Your task to perform on an android device: Open display settings Image 0: 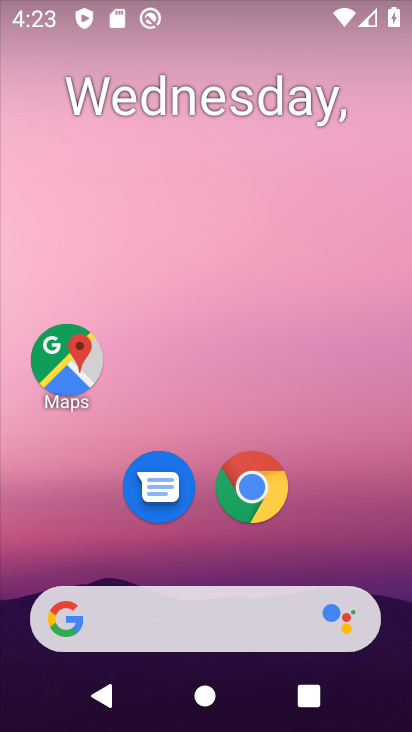
Step 0: drag from (205, 556) to (260, 110)
Your task to perform on an android device: Open display settings Image 1: 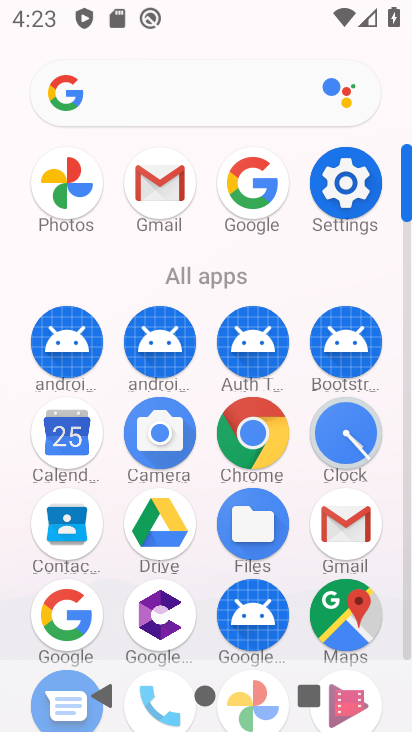
Step 1: click (349, 170)
Your task to perform on an android device: Open display settings Image 2: 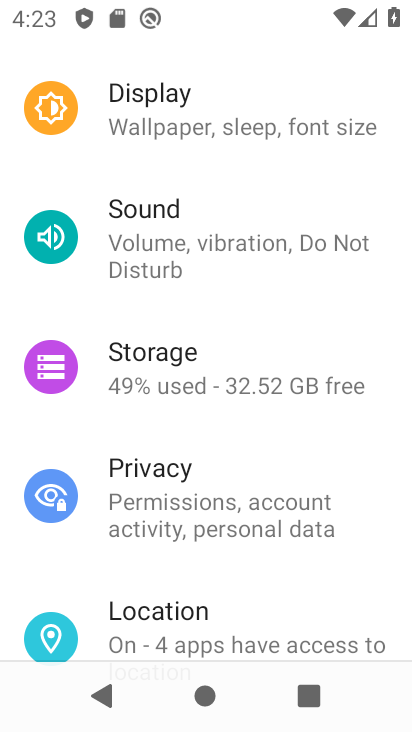
Step 2: drag from (210, 155) to (238, 578)
Your task to perform on an android device: Open display settings Image 3: 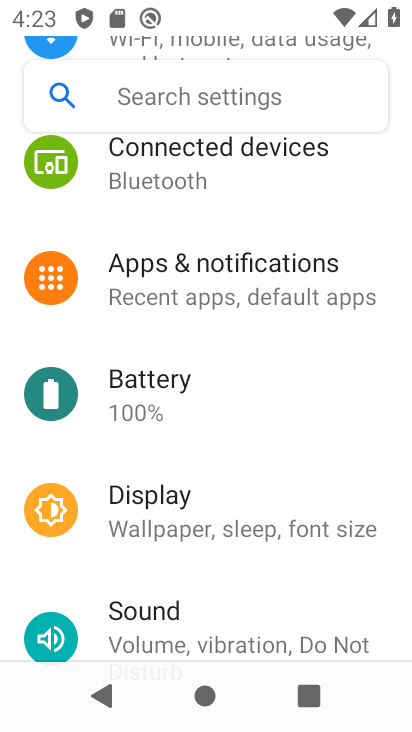
Step 3: click (211, 498)
Your task to perform on an android device: Open display settings Image 4: 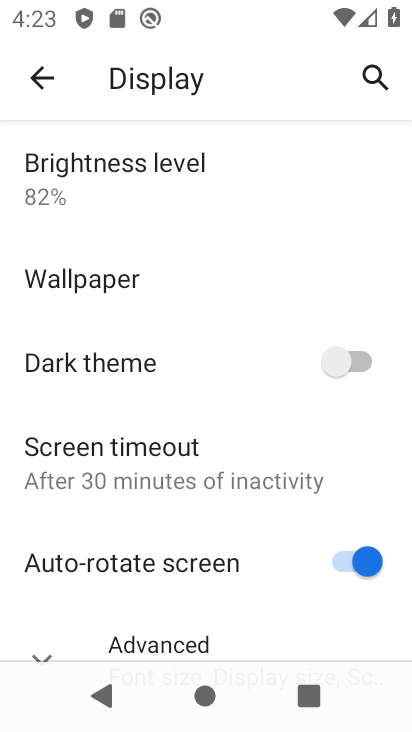
Step 4: drag from (232, 601) to (284, 183)
Your task to perform on an android device: Open display settings Image 5: 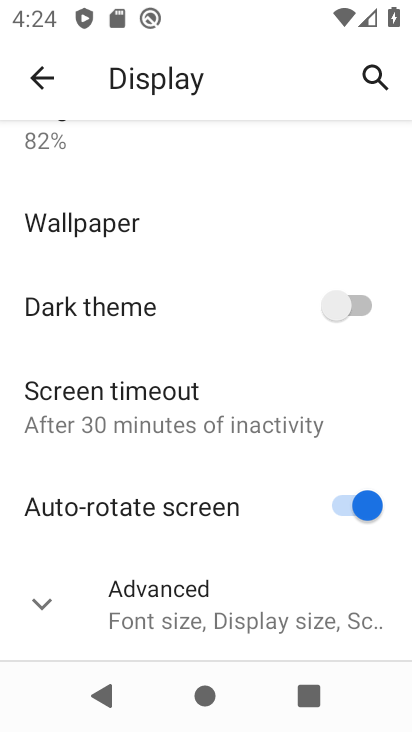
Step 5: click (41, 599)
Your task to perform on an android device: Open display settings Image 6: 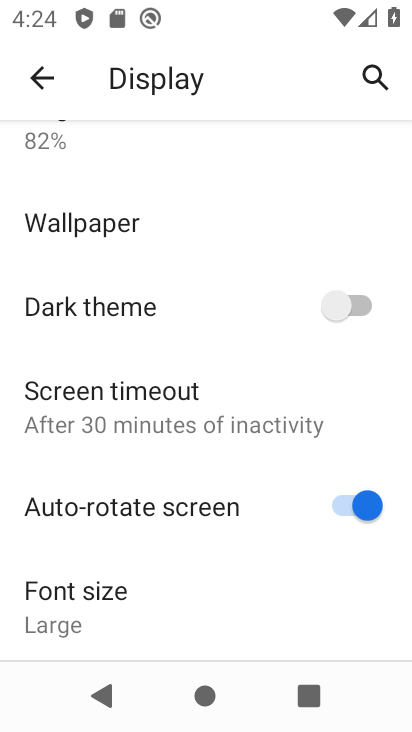
Step 6: task complete